Your task to perform on an android device: toggle location history Image 0: 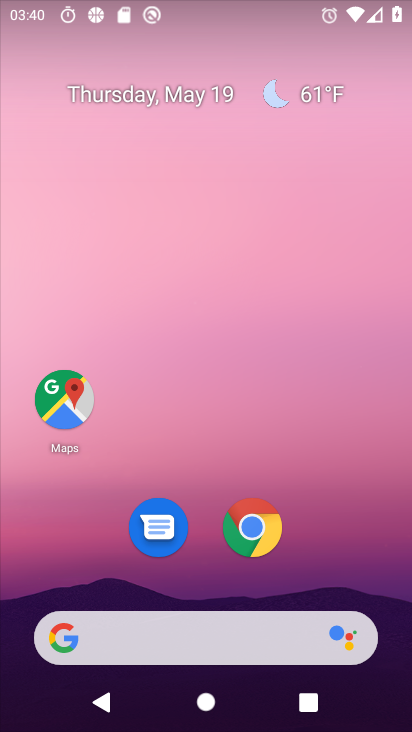
Step 0: drag from (188, 539) to (261, 222)
Your task to perform on an android device: toggle location history Image 1: 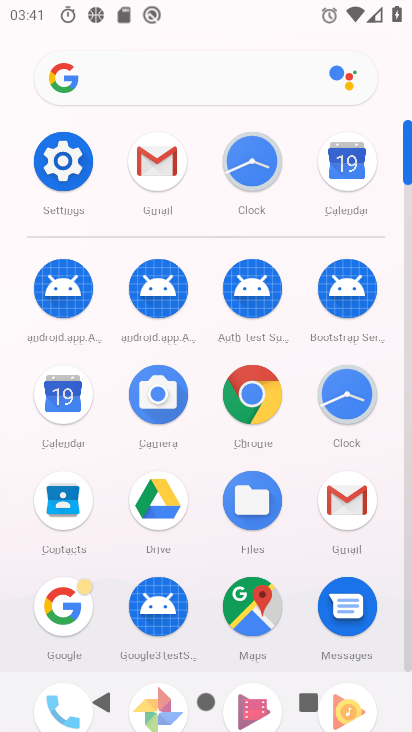
Step 1: click (32, 156)
Your task to perform on an android device: toggle location history Image 2: 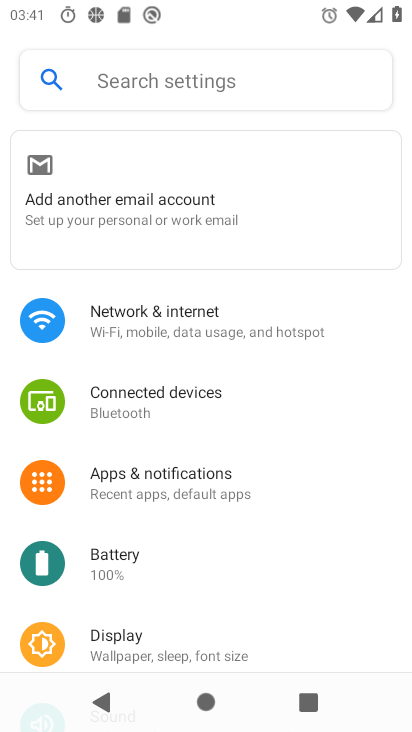
Step 2: drag from (215, 627) to (258, 264)
Your task to perform on an android device: toggle location history Image 3: 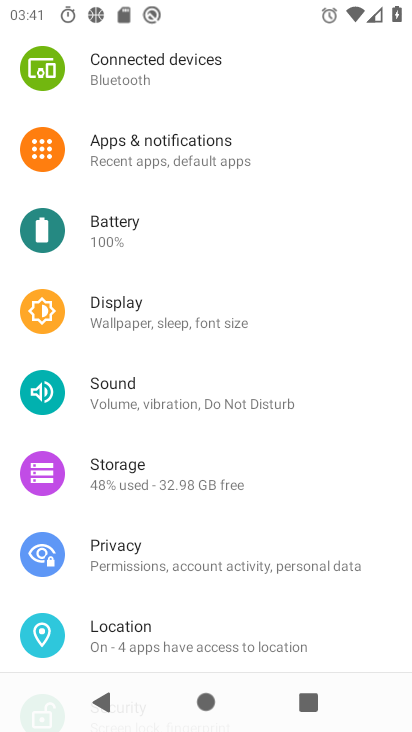
Step 3: click (124, 627)
Your task to perform on an android device: toggle location history Image 4: 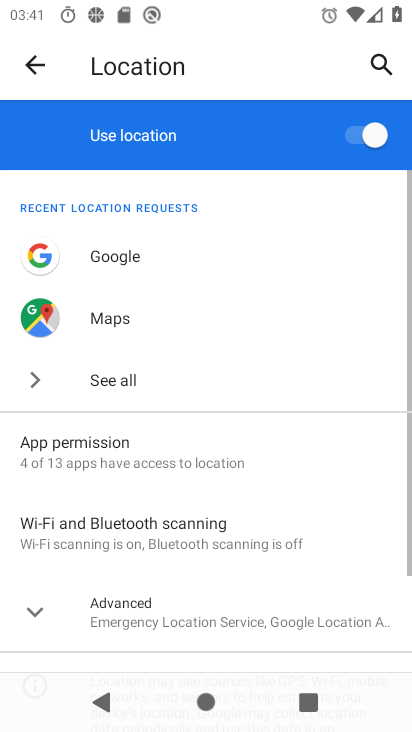
Step 4: drag from (170, 619) to (254, 245)
Your task to perform on an android device: toggle location history Image 5: 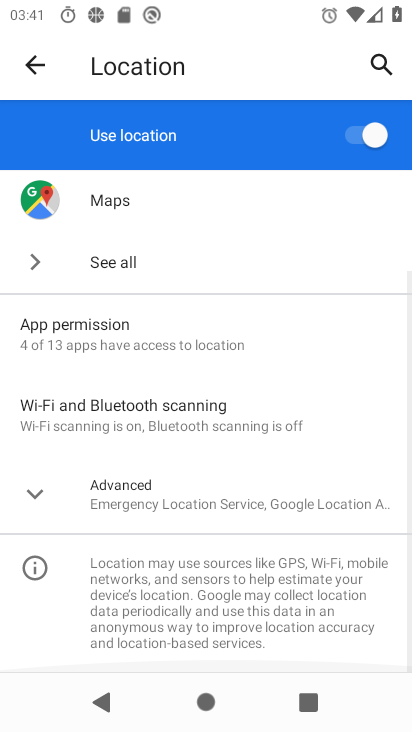
Step 5: click (115, 504)
Your task to perform on an android device: toggle location history Image 6: 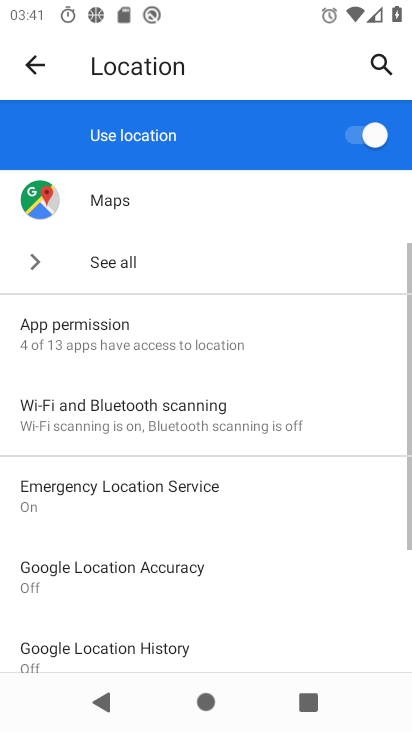
Step 6: click (130, 653)
Your task to perform on an android device: toggle location history Image 7: 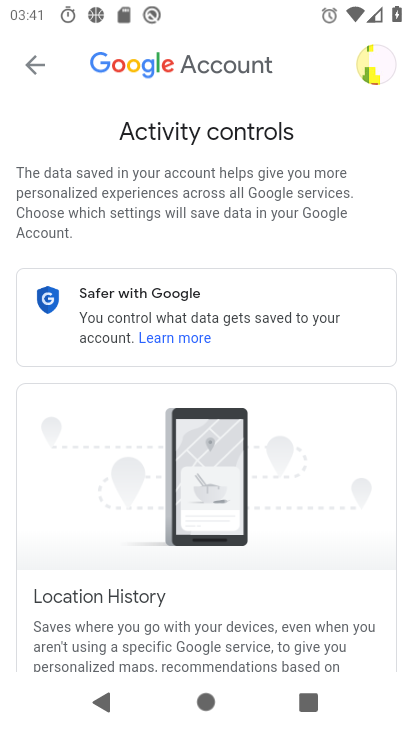
Step 7: drag from (206, 524) to (370, 87)
Your task to perform on an android device: toggle location history Image 8: 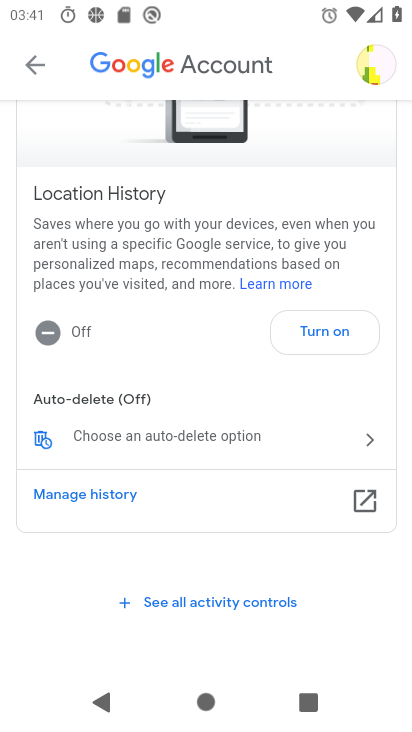
Step 8: click (333, 335)
Your task to perform on an android device: toggle location history Image 9: 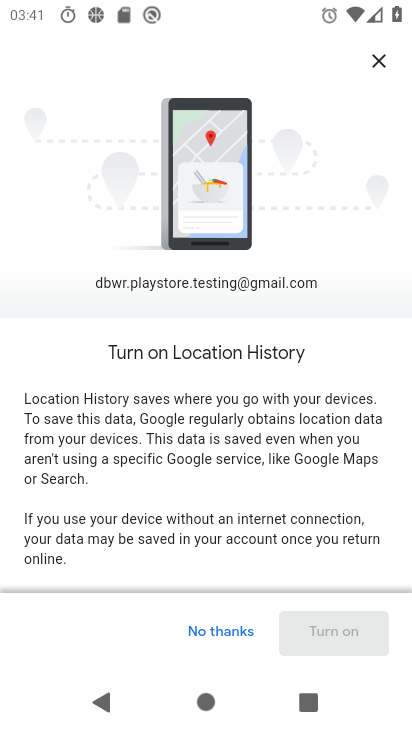
Step 9: drag from (244, 494) to (292, 56)
Your task to perform on an android device: toggle location history Image 10: 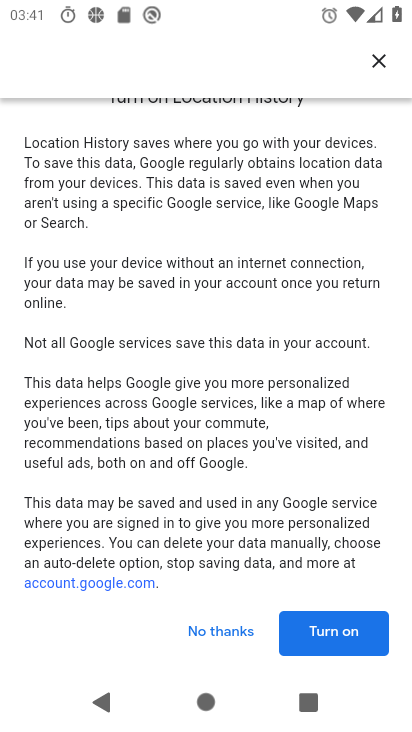
Step 10: click (371, 633)
Your task to perform on an android device: toggle location history Image 11: 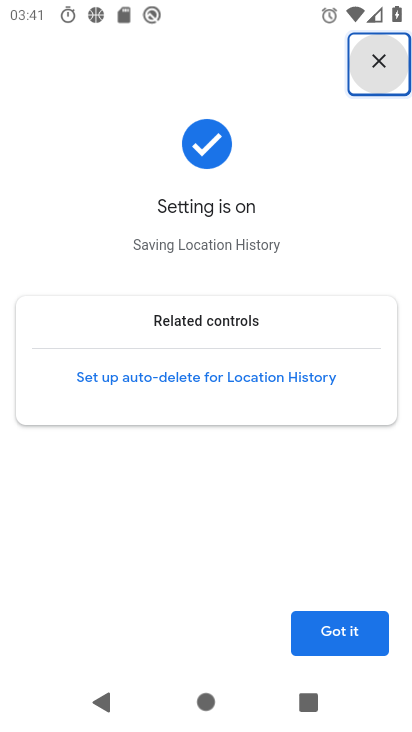
Step 11: task complete